Your task to perform on an android device: Is it going to rain tomorrow? Image 0: 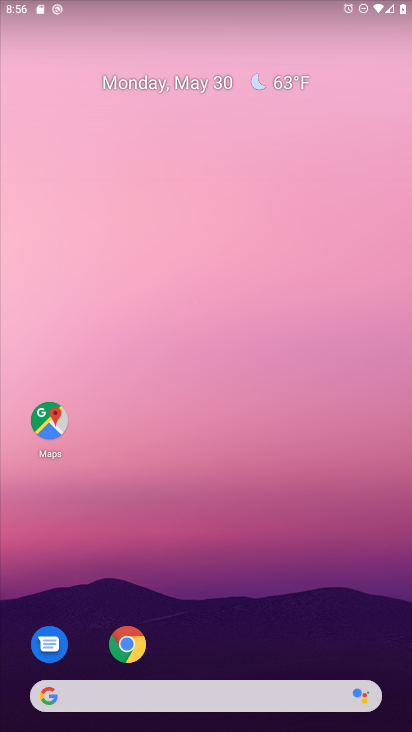
Step 0: drag from (201, 638) to (258, 54)
Your task to perform on an android device: Is it going to rain tomorrow? Image 1: 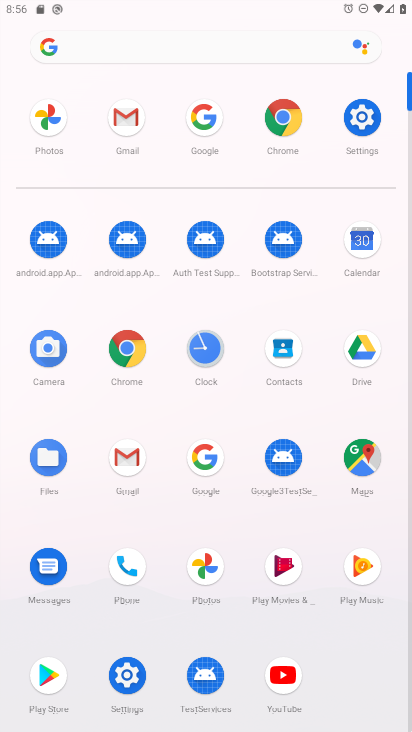
Step 1: click (204, 459)
Your task to perform on an android device: Is it going to rain tomorrow? Image 2: 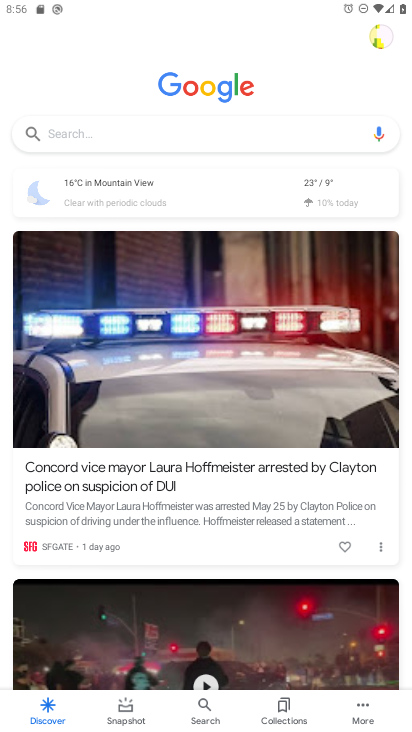
Step 2: click (154, 140)
Your task to perform on an android device: Is it going to rain tomorrow? Image 3: 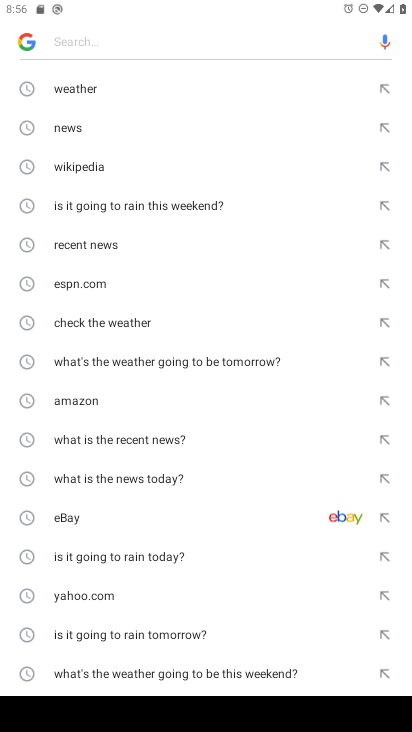
Step 3: click (119, 633)
Your task to perform on an android device: Is it going to rain tomorrow? Image 4: 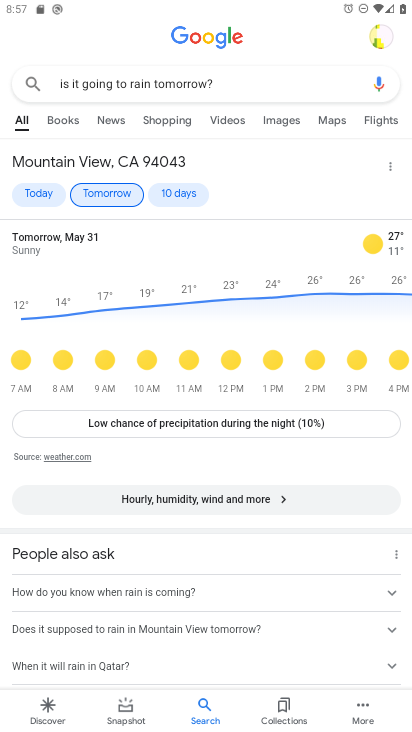
Step 4: task complete